Your task to perform on an android device: set an alarm Image 0: 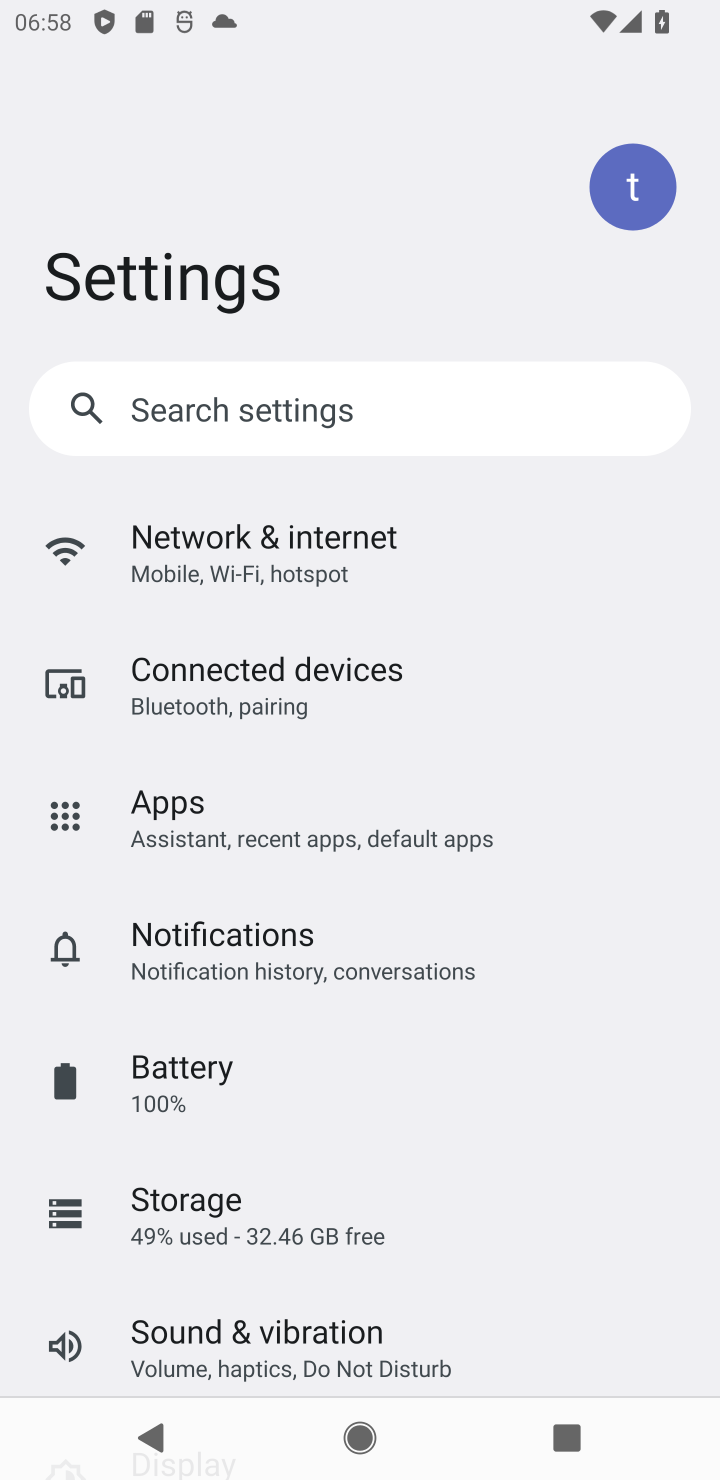
Step 0: press home button
Your task to perform on an android device: set an alarm Image 1: 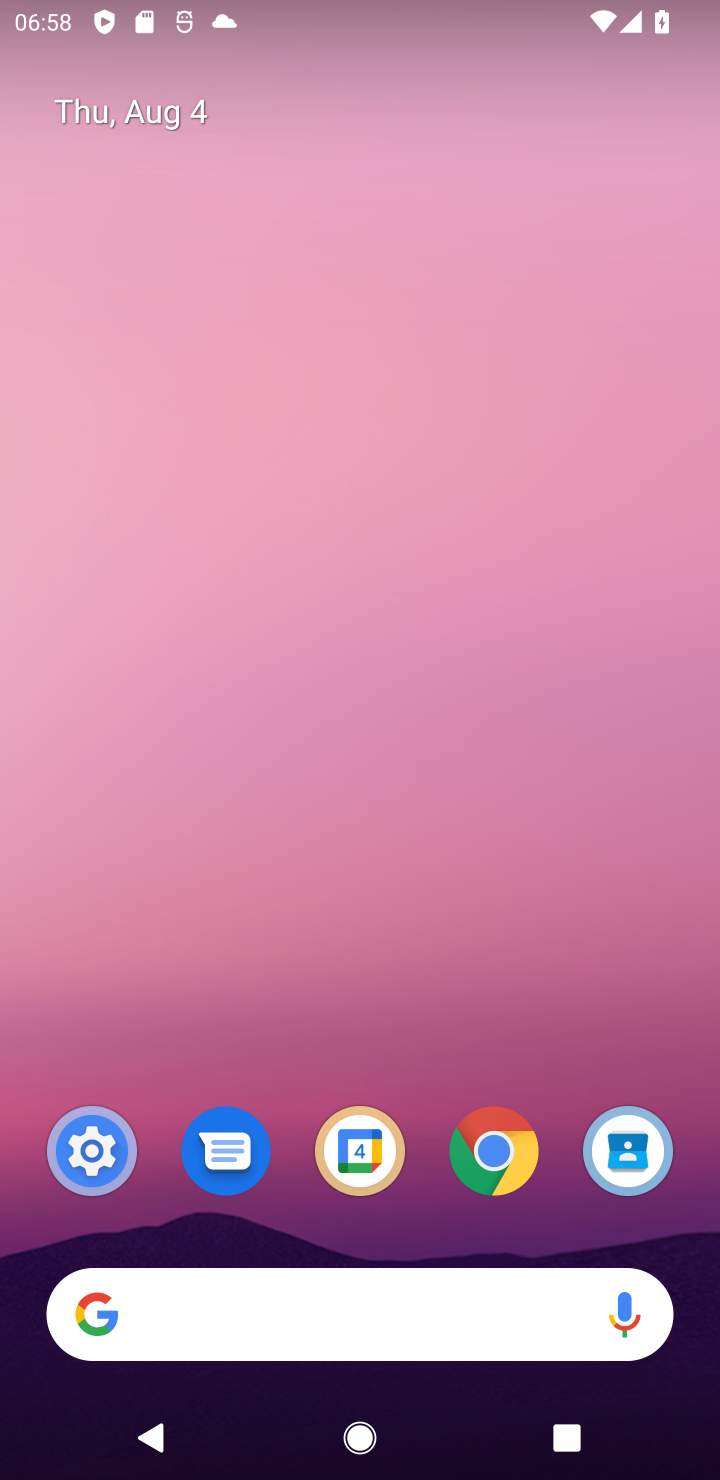
Step 1: drag from (382, 1158) to (163, 48)
Your task to perform on an android device: set an alarm Image 2: 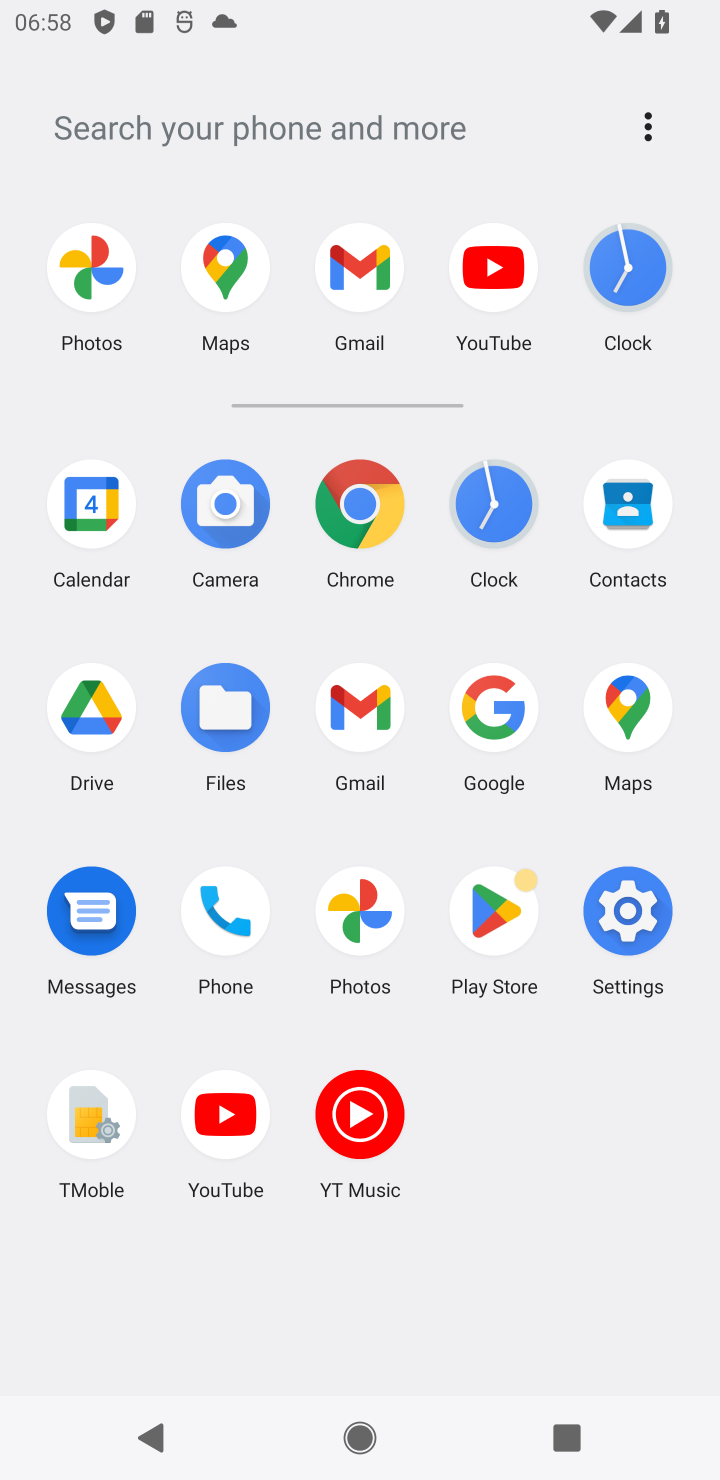
Step 2: click (495, 511)
Your task to perform on an android device: set an alarm Image 3: 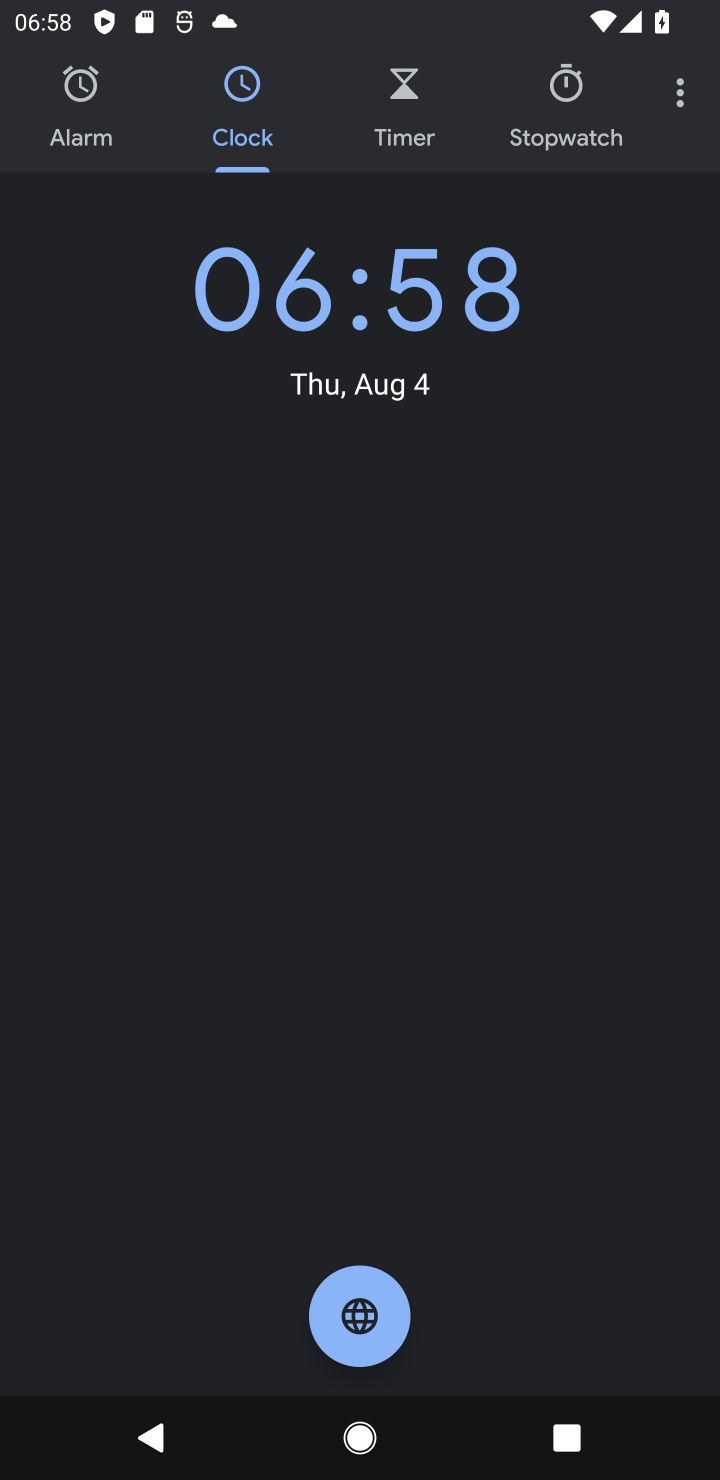
Step 3: click (67, 132)
Your task to perform on an android device: set an alarm Image 4: 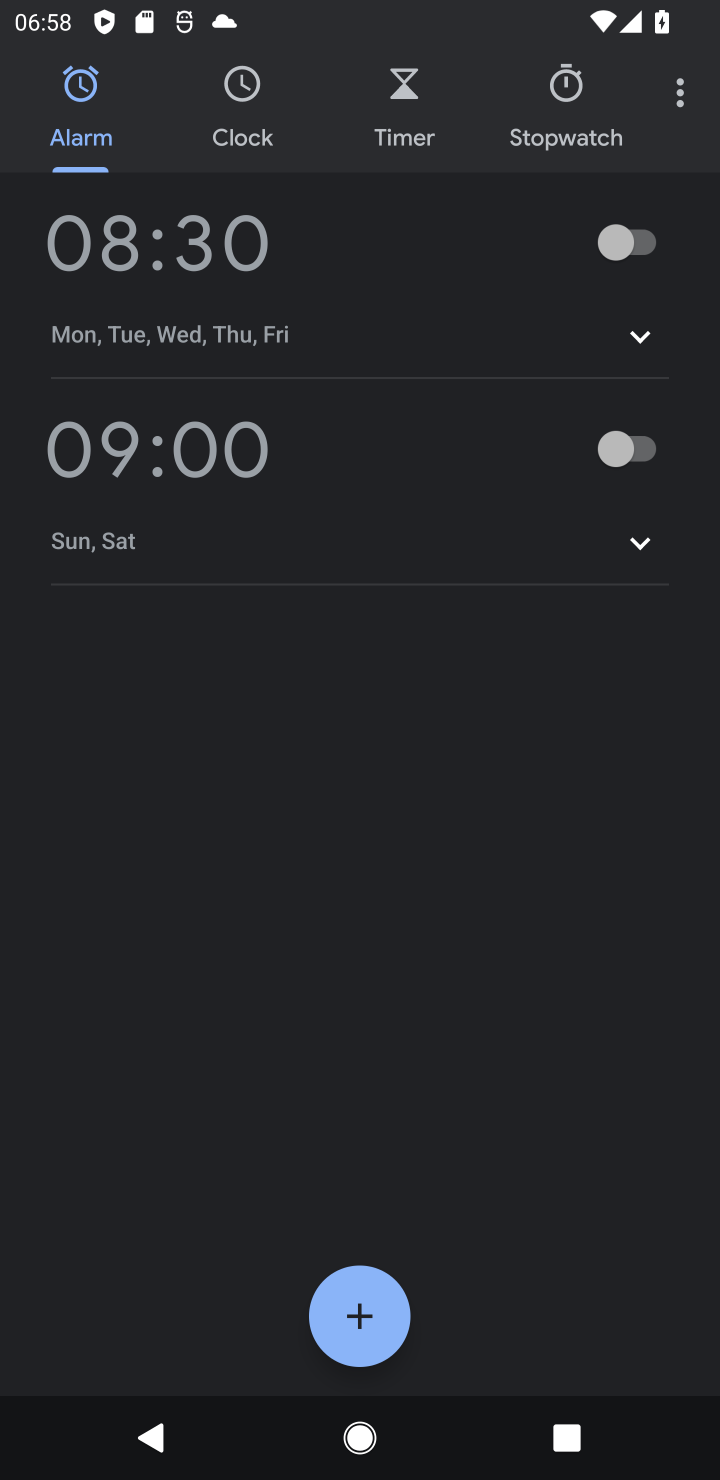
Step 4: click (121, 228)
Your task to perform on an android device: set an alarm Image 5: 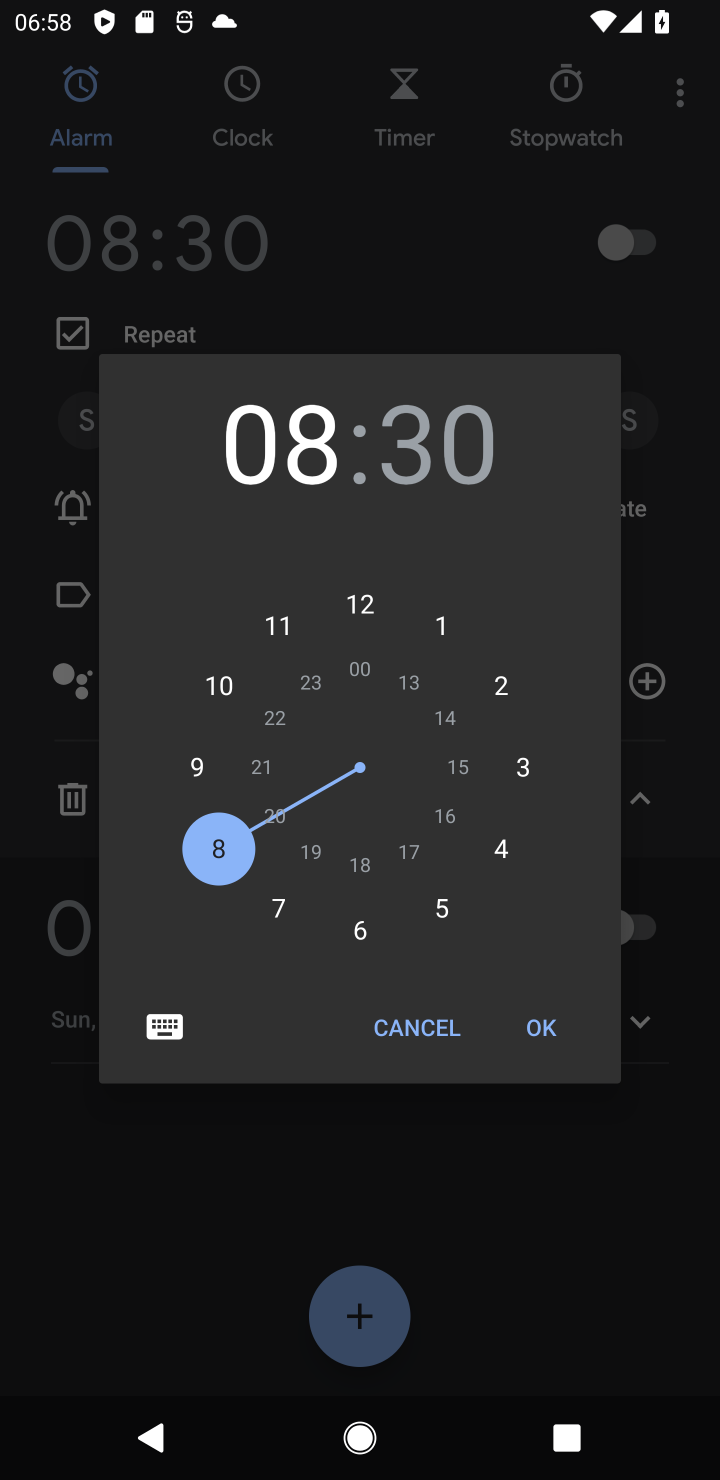
Step 5: click (446, 904)
Your task to perform on an android device: set an alarm Image 6: 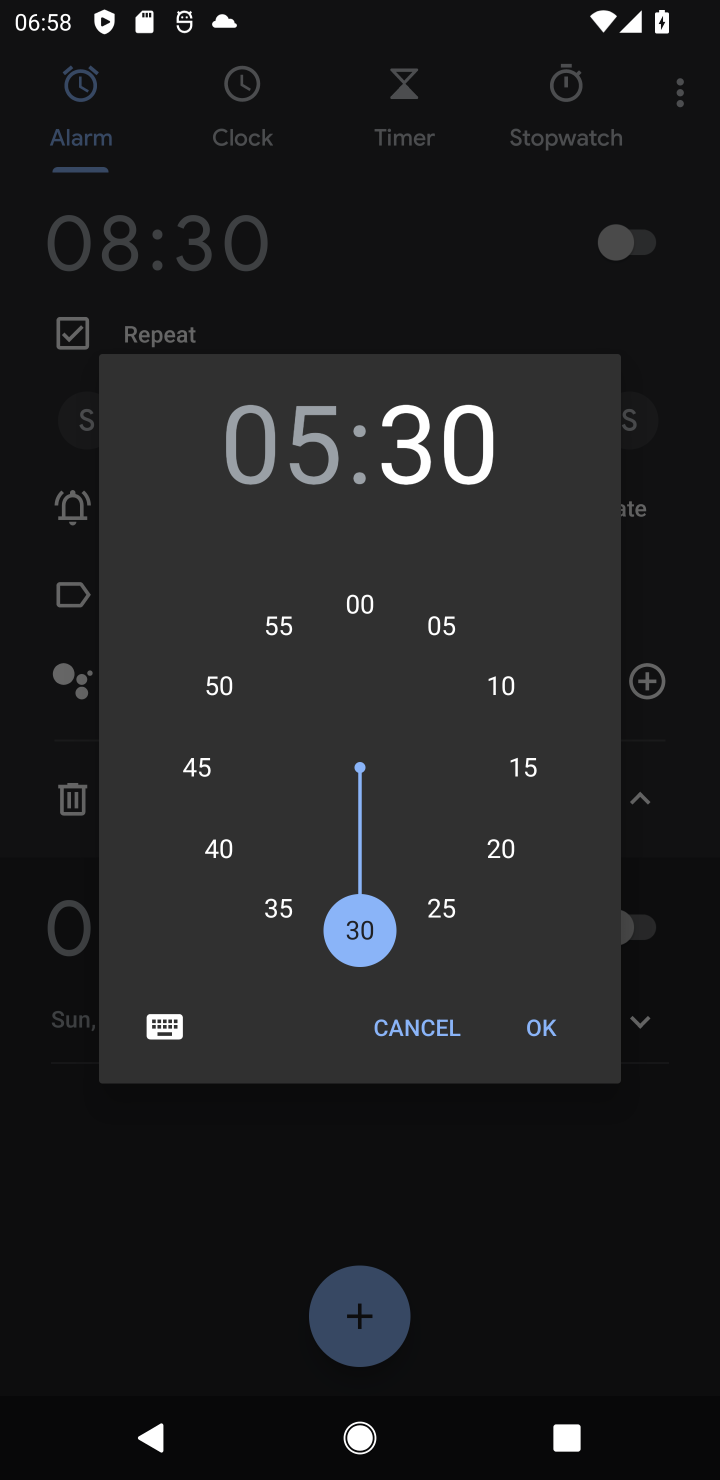
Step 6: click (408, 859)
Your task to perform on an android device: set an alarm Image 7: 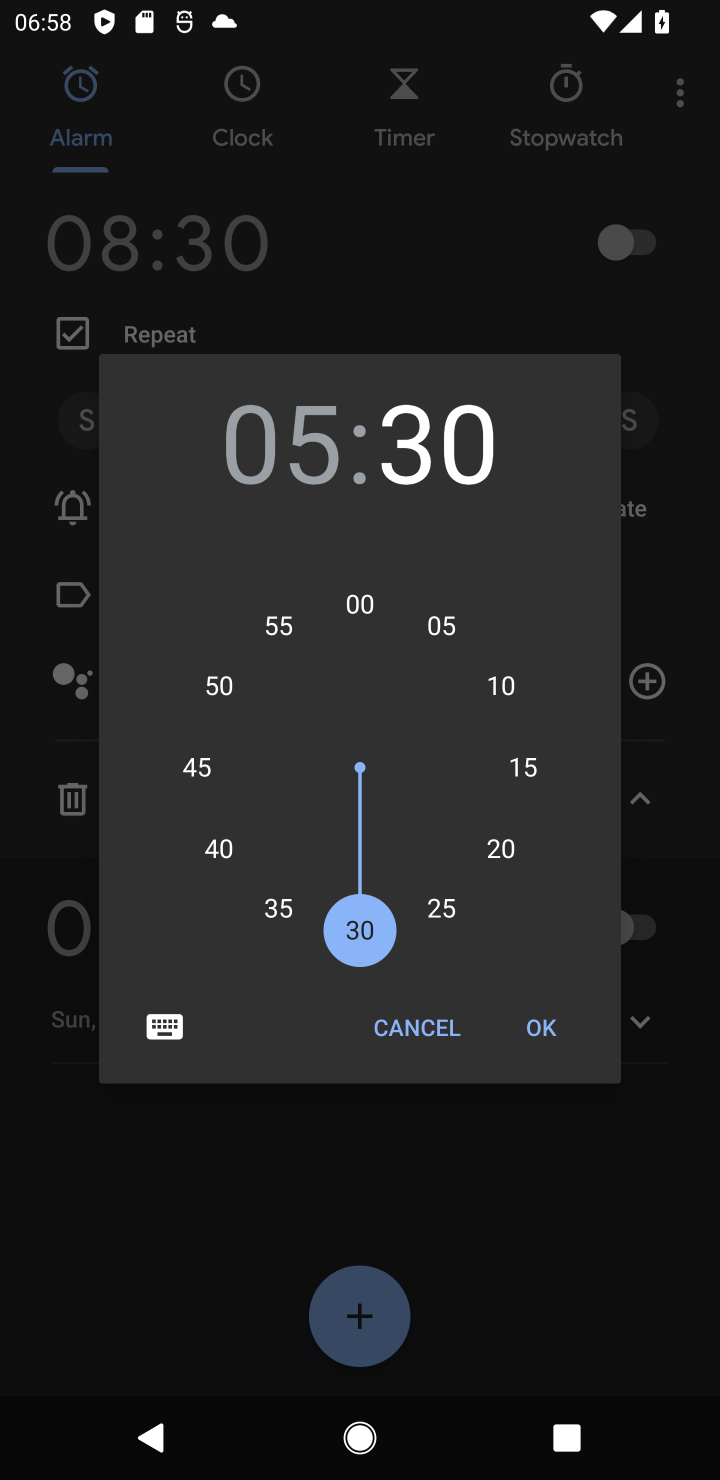
Step 7: click (436, 905)
Your task to perform on an android device: set an alarm Image 8: 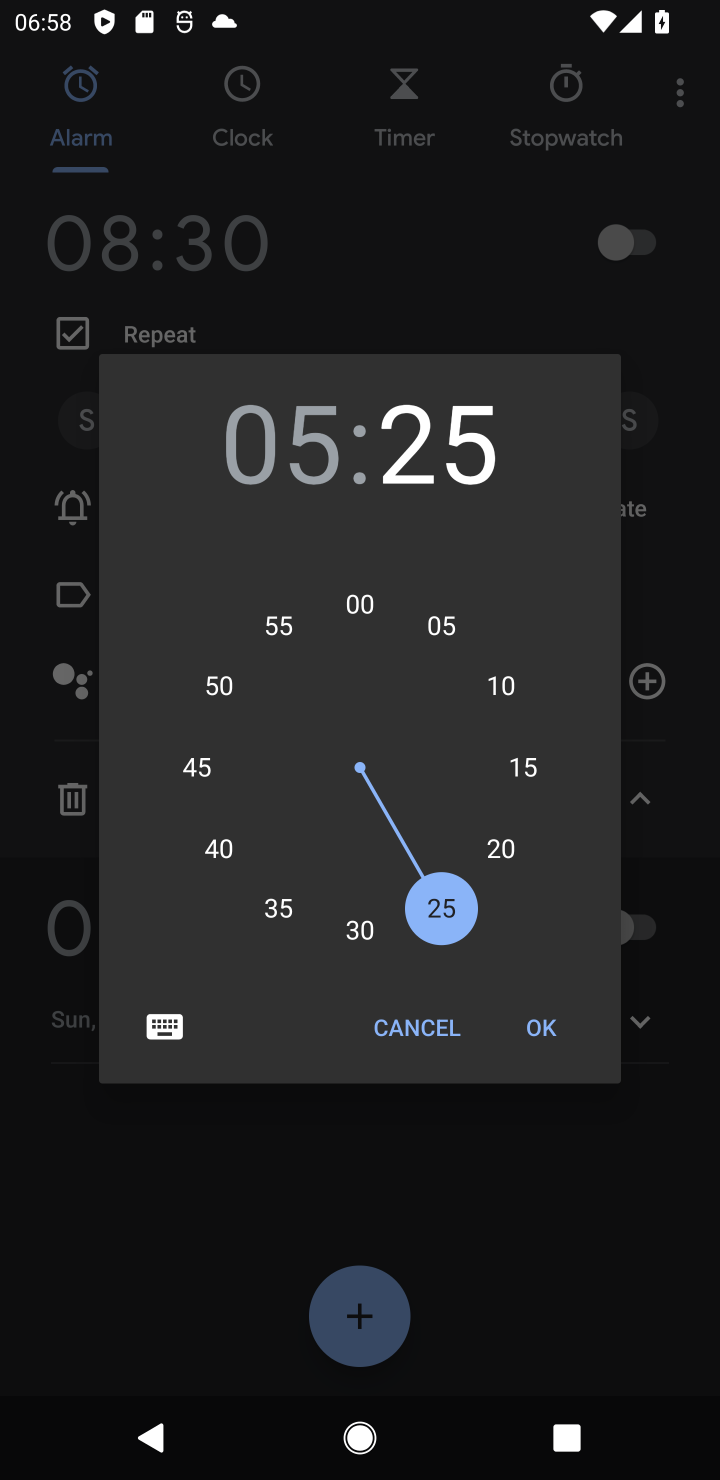
Step 8: click (555, 1022)
Your task to perform on an android device: set an alarm Image 9: 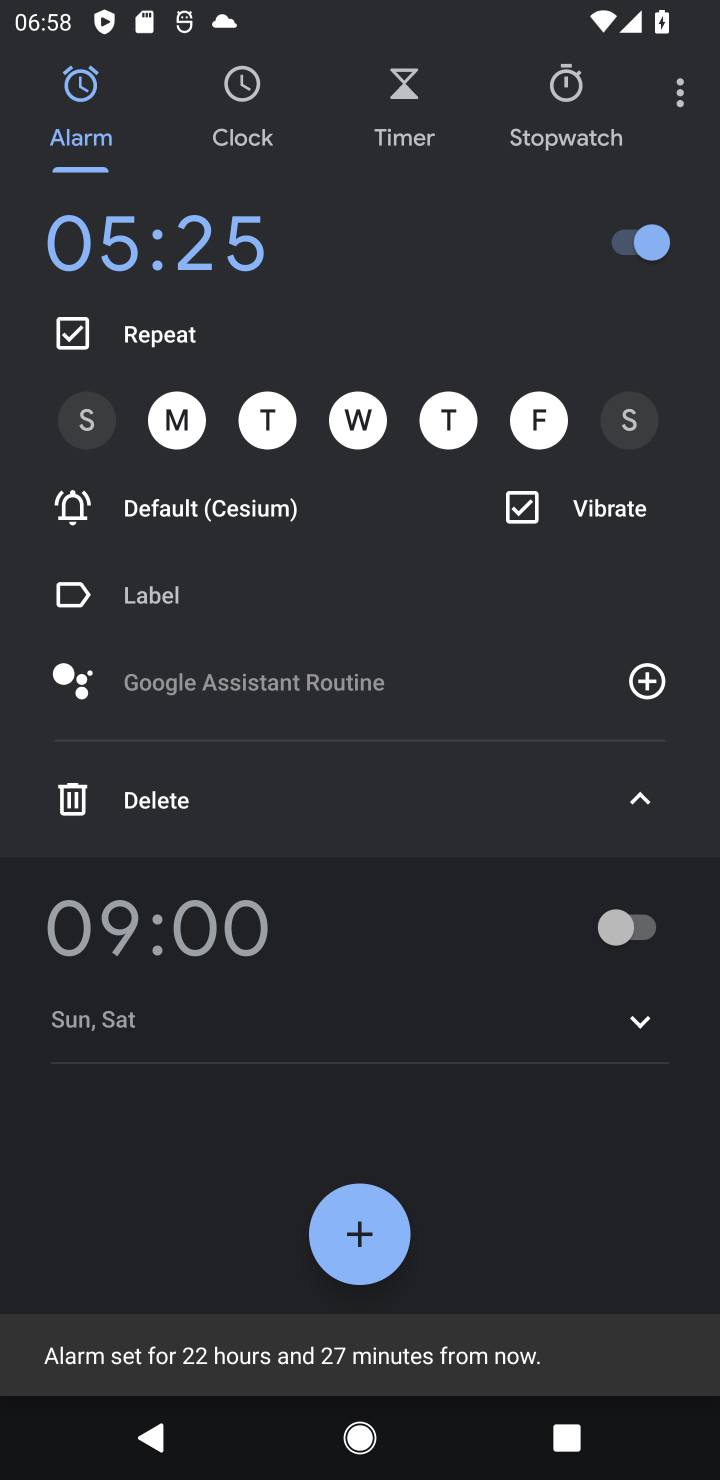
Step 9: click (266, 437)
Your task to perform on an android device: set an alarm Image 10: 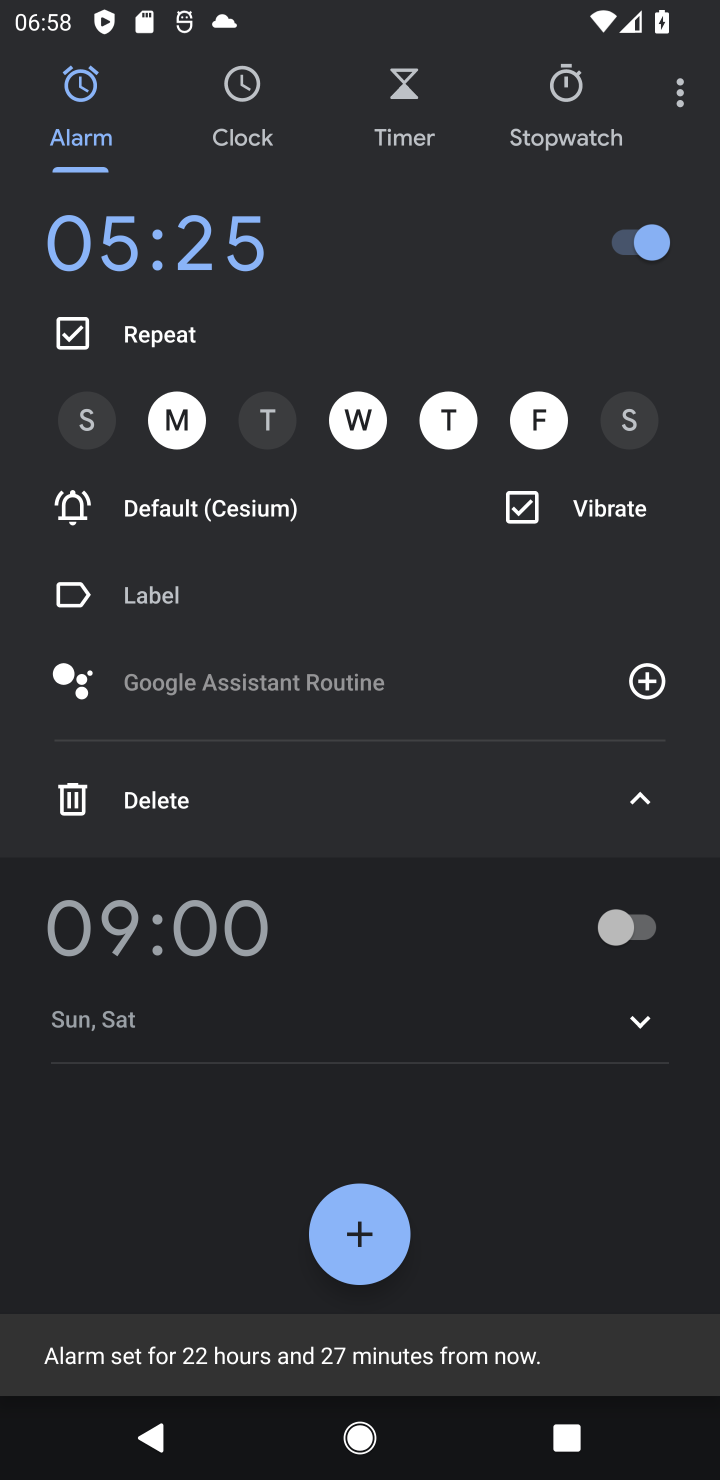
Step 10: click (438, 427)
Your task to perform on an android device: set an alarm Image 11: 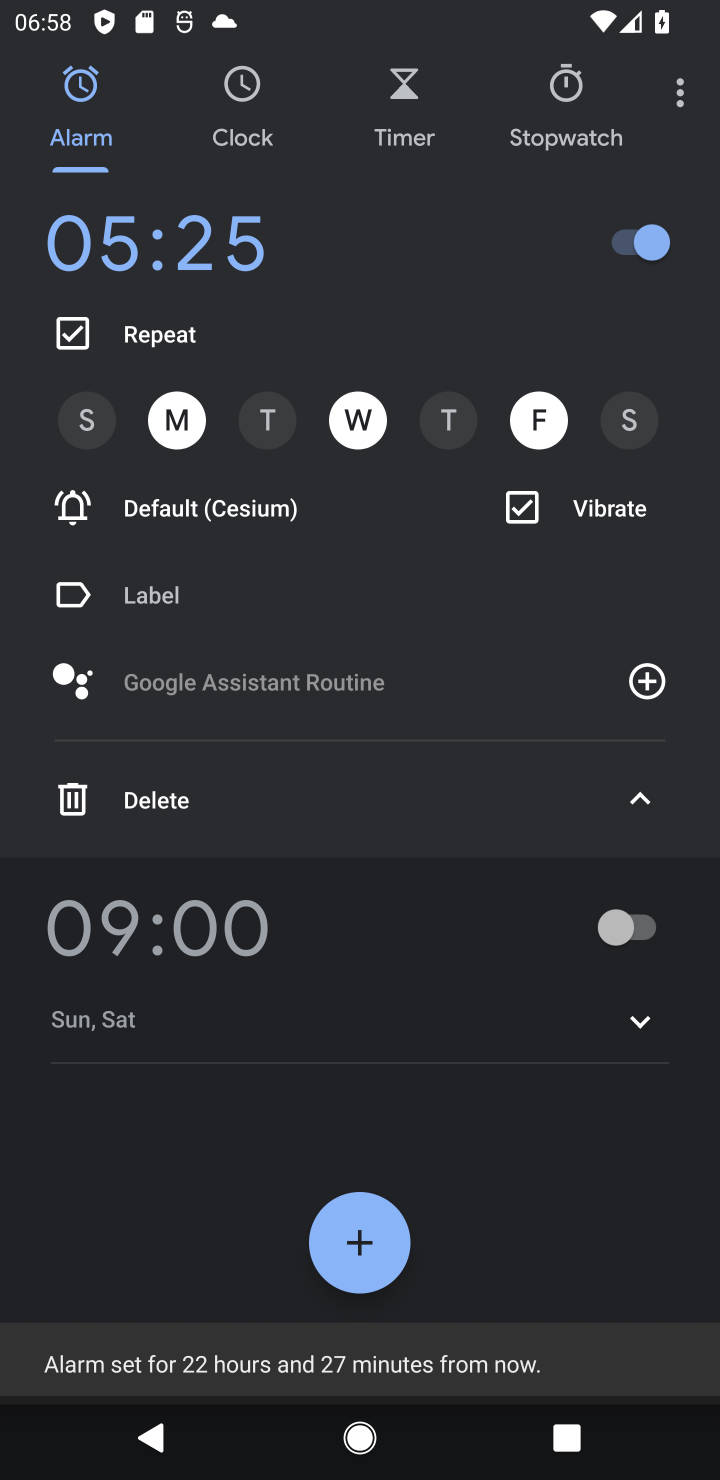
Step 11: click (630, 415)
Your task to perform on an android device: set an alarm Image 12: 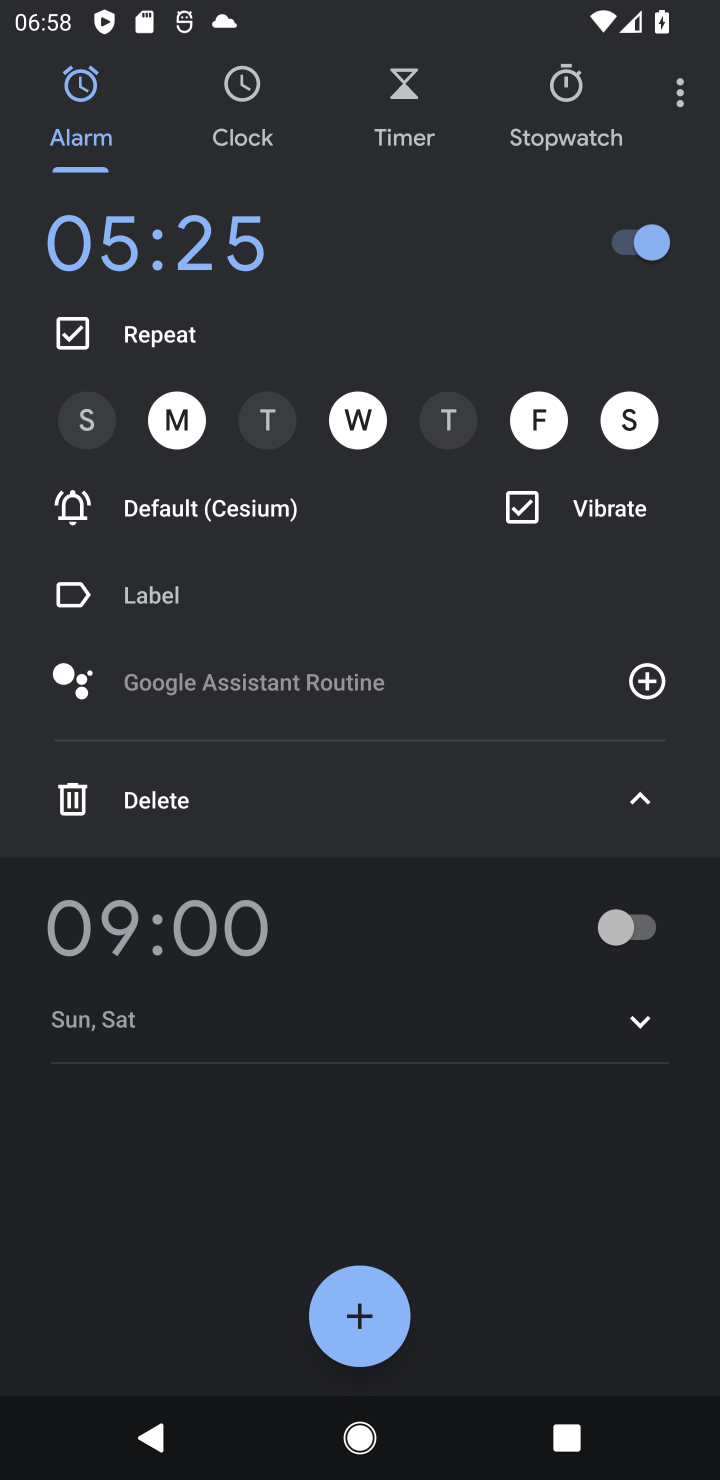
Step 12: task complete